Your task to perform on an android device: turn off wifi Image 0: 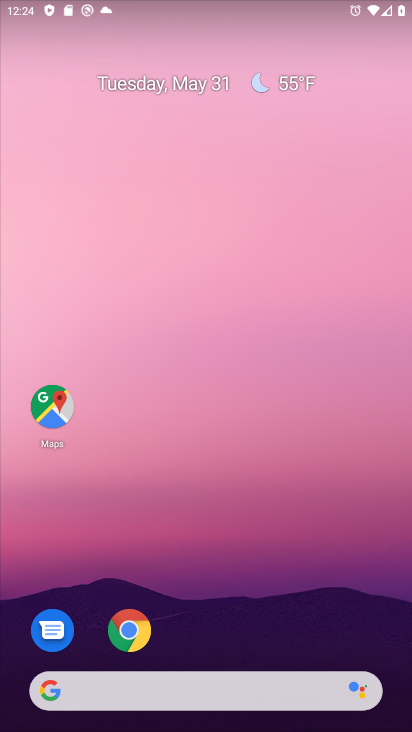
Step 0: drag from (255, 668) to (255, 212)
Your task to perform on an android device: turn off wifi Image 1: 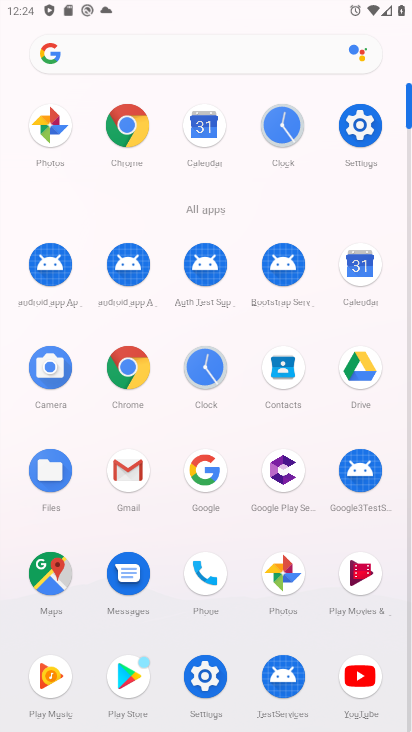
Step 1: click (358, 140)
Your task to perform on an android device: turn off wifi Image 2: 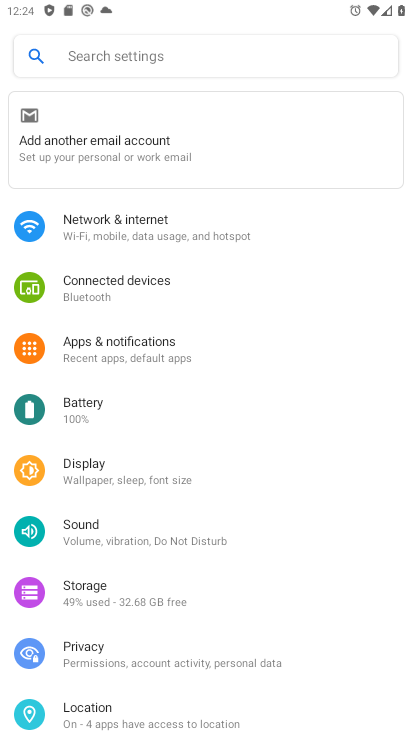
Step 2: click (166, 228)
Your task to perform on an android device: turn off wifi Image 3: 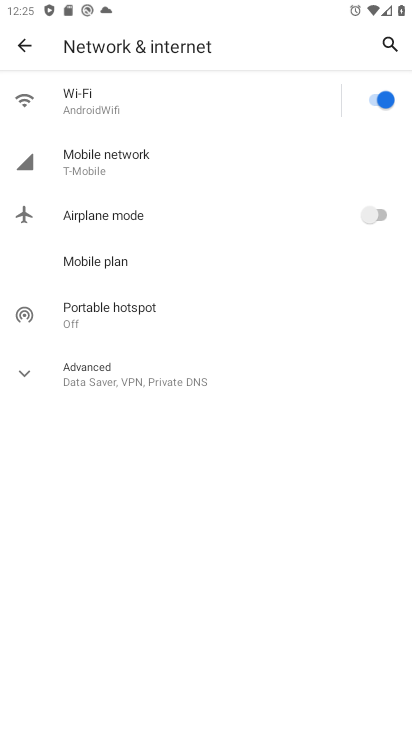
Step 3: task complete